Your task to perform on an android device: all mails in gmail Image 0: 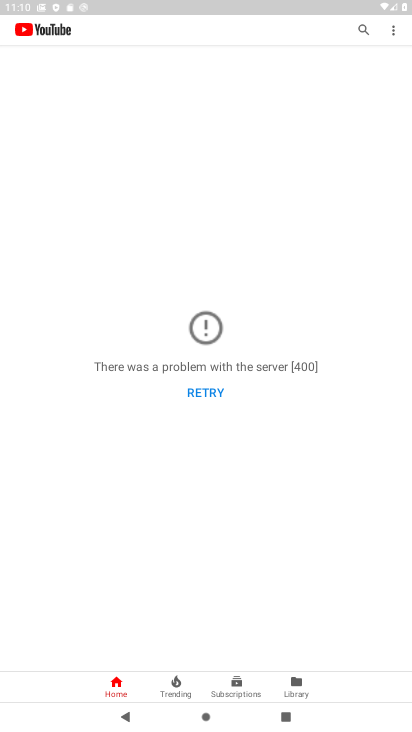
Step 0: press home button
Your task to perform on an android device: all mails in gmail Image 1: 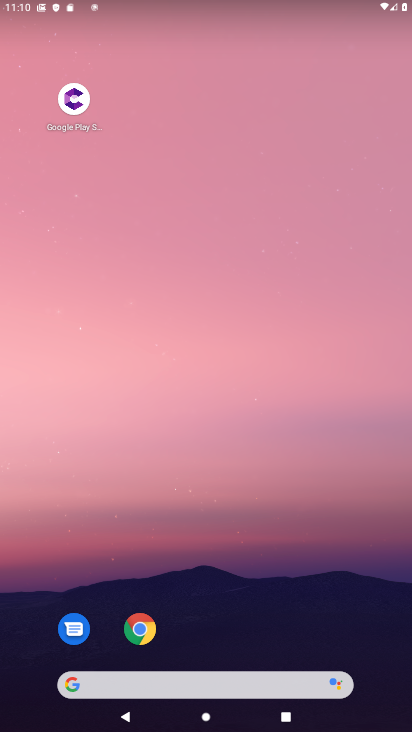
Step 1: drag from (155, 505) to (150, 239)
Your task to perform on an android device: all mails in gmail Image 2: 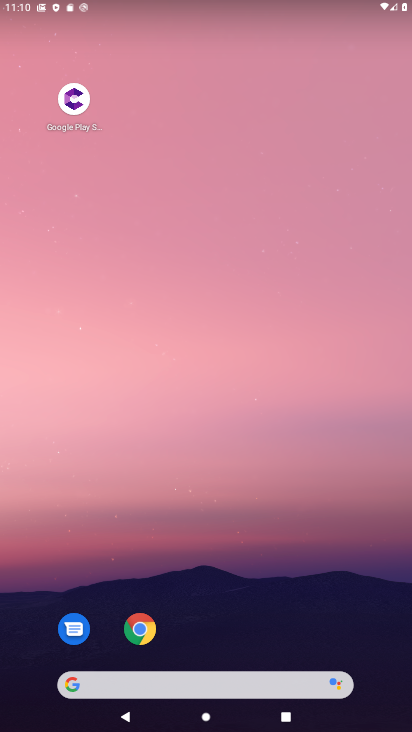
Step 2: drag from (182, 660) to (182, 299)
Your task to perform on an android device: all mails in gmail Image 3: 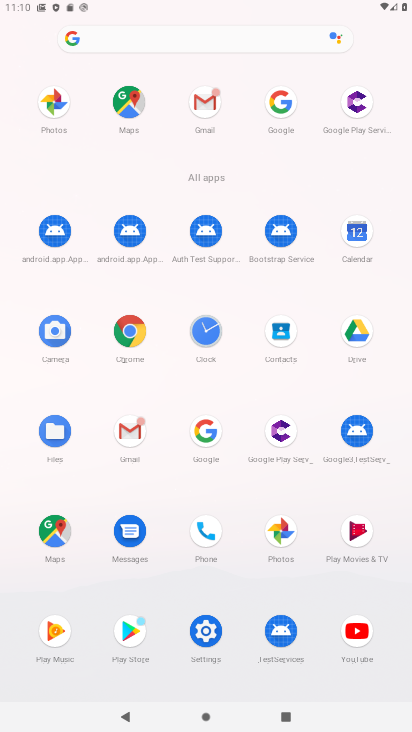
Step 3: click (204, 106)
Your task to perform on an android device: all mails in gmail Image 4: 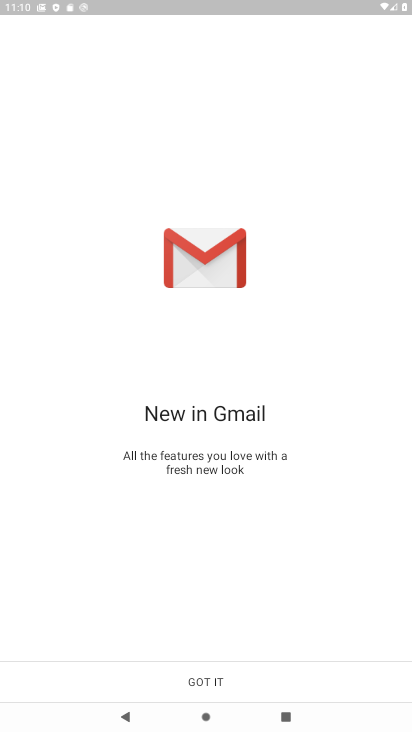
Step 4: click (207, 687)
Your task to perform on an android device: all mails in gmail Image 5: 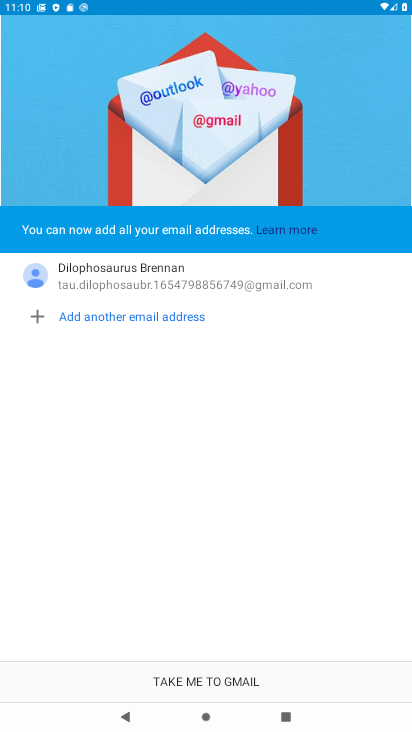
Step 5: click (201, 683)
Your task to perform on an android device: all mails in gmail Image 6: 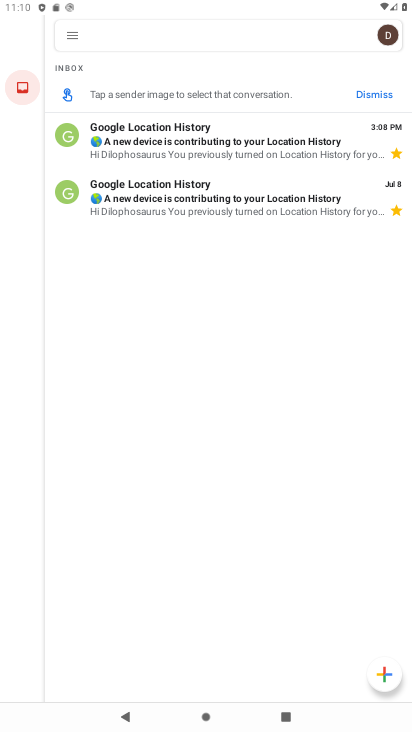
Step 6: click (74, 41)
Your task to perform on an android device: all mails in gmail Image 7: 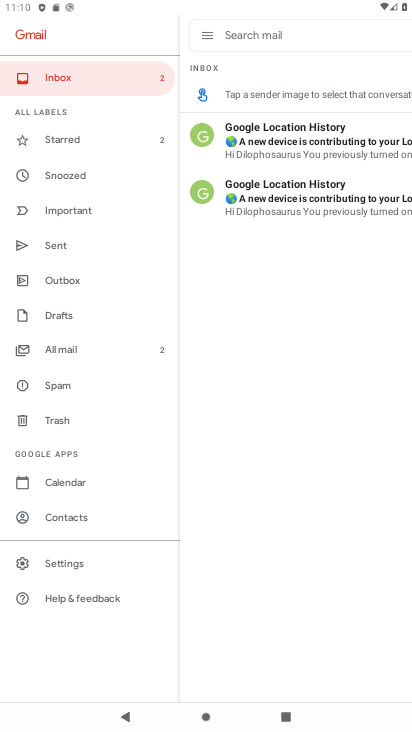
Step 7: click (48, 348)
Your task to perform on an android device: all mails in gmail Image 8: 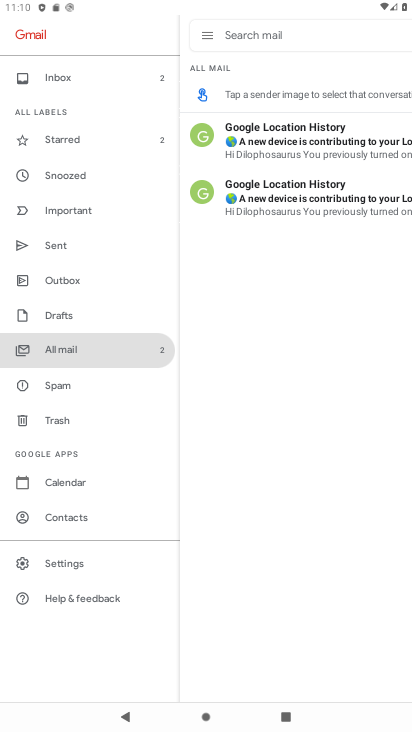
Step 8: click (60, 348)
Your task to perform on an android device: all mails in gmail Image 9: 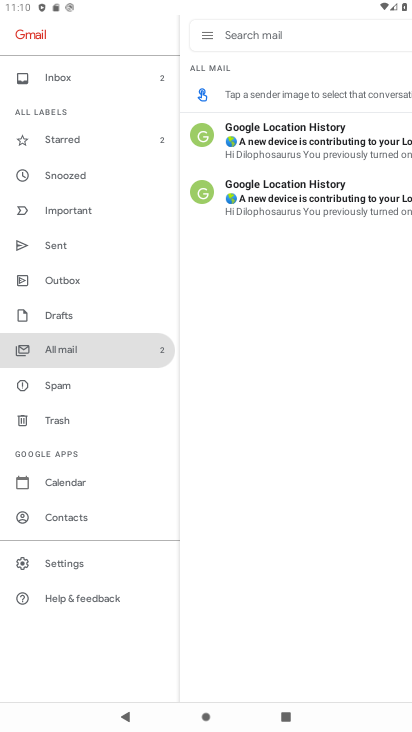
Step 9: task complete